Your task to perform on an android device: Open ESPN.com Image 0: 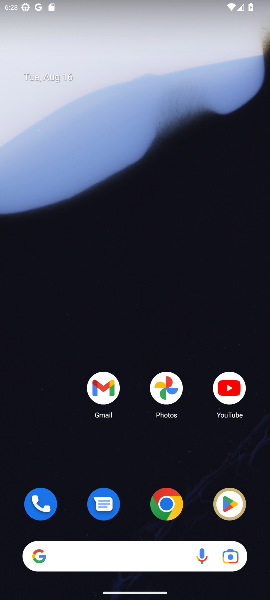
Step 0: click (74, 549)
Your task to perform on an android device: Open ESPN.com Image 1: 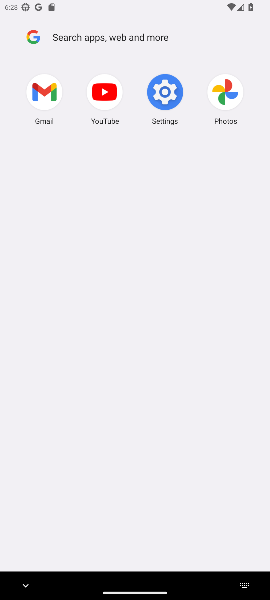
Step 1: type "ESPN.com"
Your task to perform on an android device: Open ESPN.com Image 2: 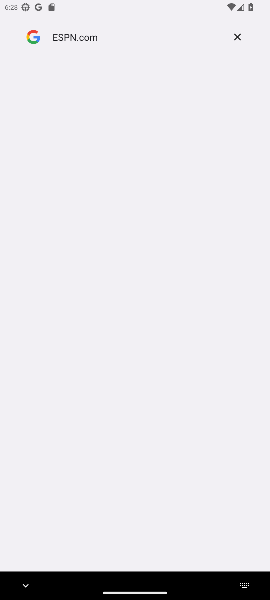
Step 2: type ""
Your task to perform on an android device: Open ESPN.com Image 3: 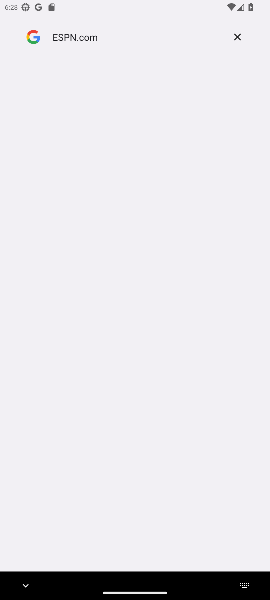
Step 3: type ""
Your task to perform on an android device: Open ESPN.com Image 4: 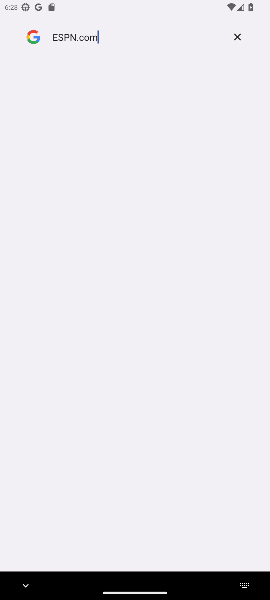
Step 4: task complete